Your task to perform on an android device: choose inbox layout in the gmail app Image 0: 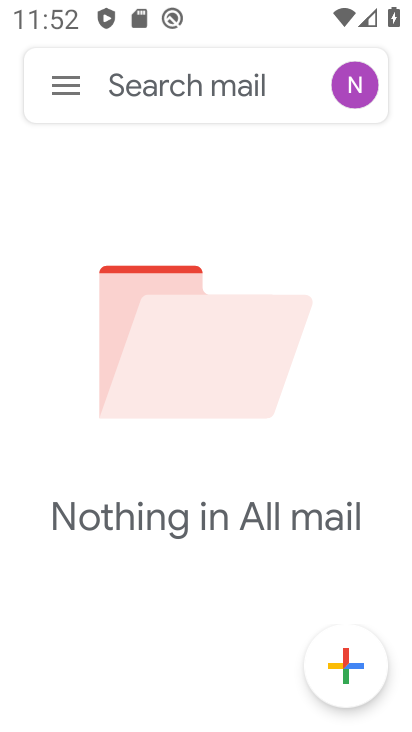
Step 0: press home button
Your task to perform on an android device: choose inbox layout in the gmail app Image 1: 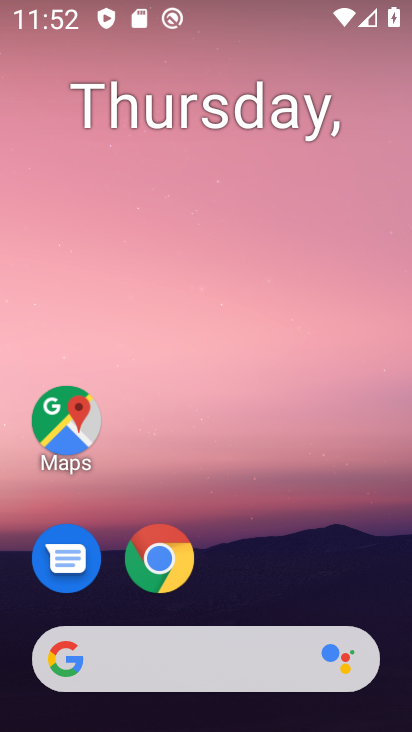
Step 1: drag from (368, 552) to (332, 116)
Your task to perform on an android device: choose inbox layout in the gmail app Image 2: 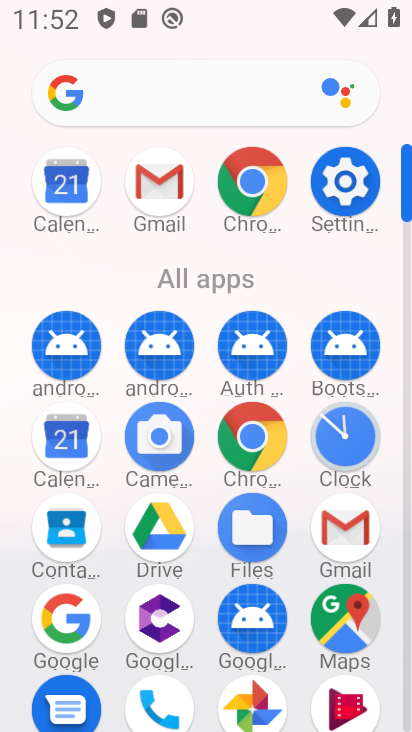
Step 2: click (352, 538)
Your task to perform on an android device: choose inbox layout in the gmail app Image 3: 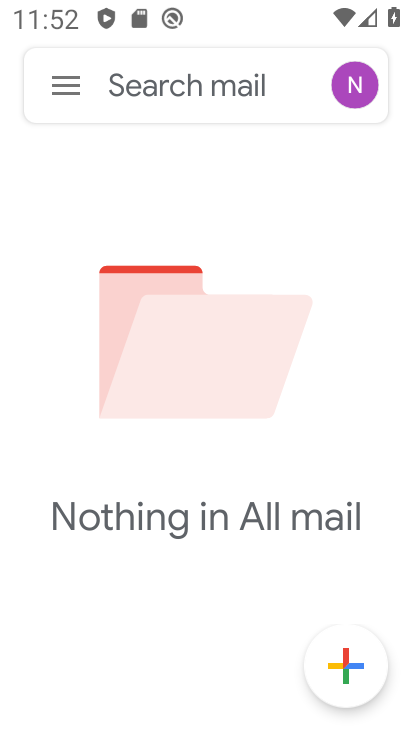
Step 3: click (61, 88)
Your task to perform on an android device: choose inbox layout in the gmail app Image 4: 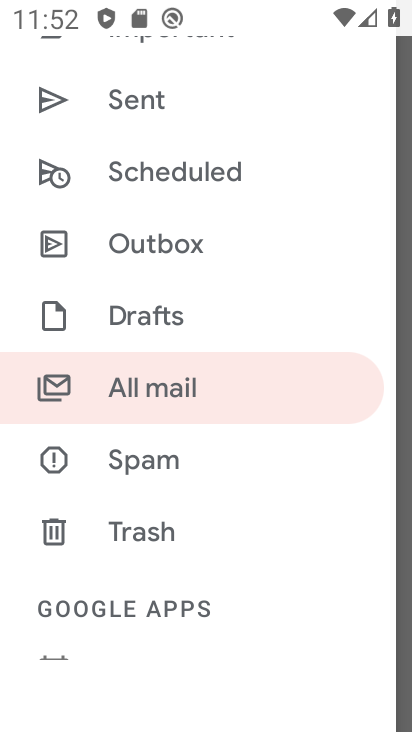
Step 4: drag from (284, 520) to (296, 371)
Your task to perform on an android device: choose inbox layout in the gmail app Image 5: 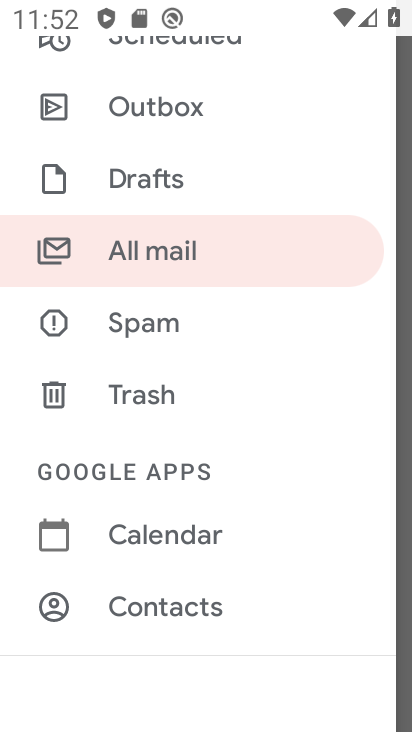
Step 5: drag from (316, 554) to (337, 308)
Your task to perform on an android device: choose inbox layout in the gmail app Image 6: 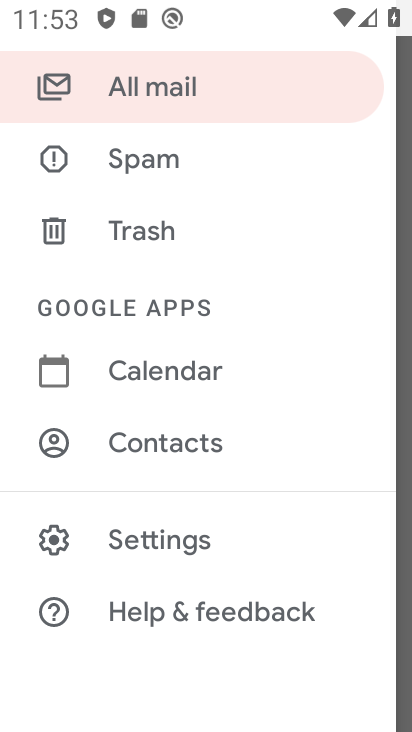
Step 6: click (218, 547)
Your task to perform on an android device: choose inbox layout in the gmail app Image 7: 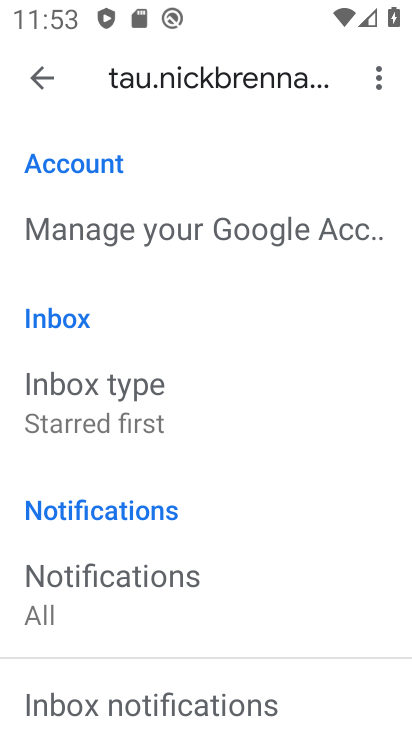
Step 7: drag from (297, 508) to (305, 349)
Your task to perform on an android device: choose inbox layout in the gmail app Image 8: 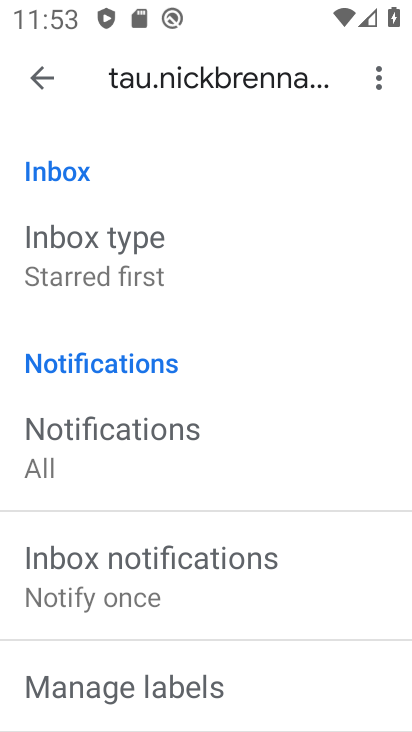
Step 8: drag from (303, 519) to (298, 354)
Your task to perform on an android device: choose inbox layout in the gmail app Image 9: 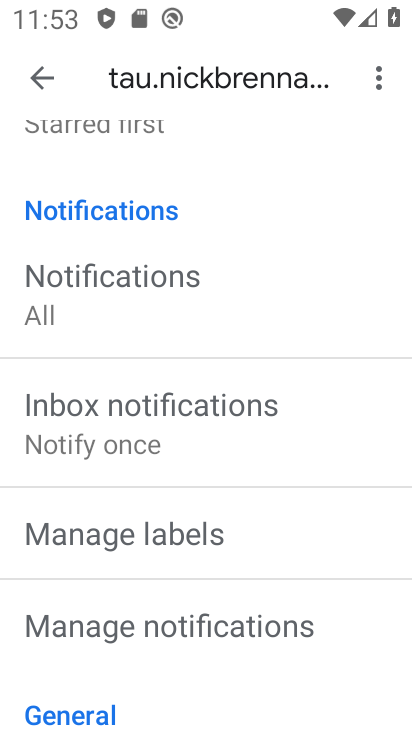
Step 9: drag from (331, 531) to (320, 294)
Your task to perform on an android device: choose inbox layout in the gmail app Image 10: 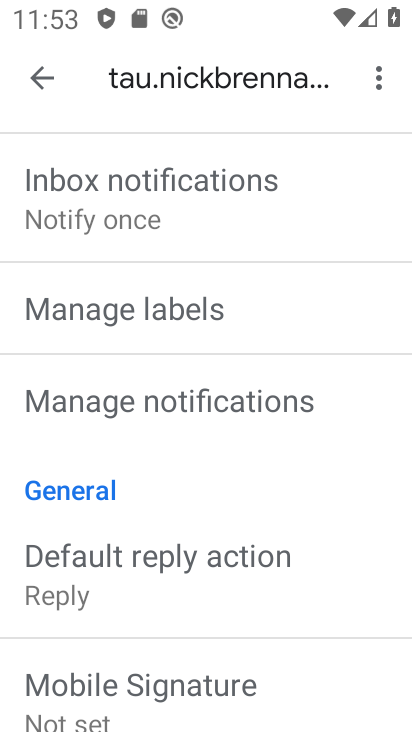
Step 10: drag from (325, 518) to (334, 369)
Your task to perform on an android device: choose inbox layout in the gmail app Image 11: 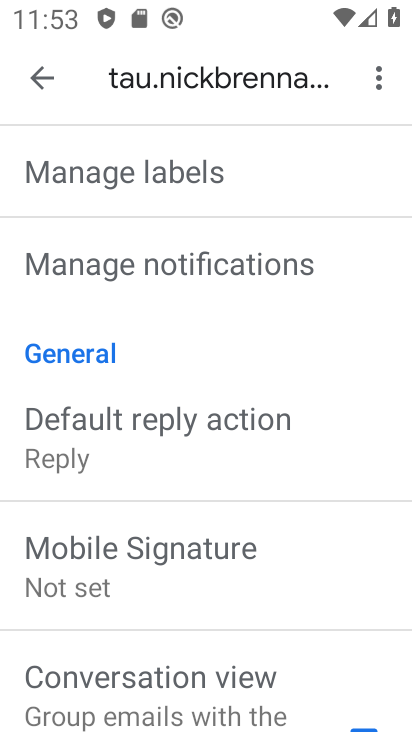
Step 11: drag from (311, 564) to (323, 430)
Your task to perform on an android device: choose inbox layout in the gmail app Image 12: 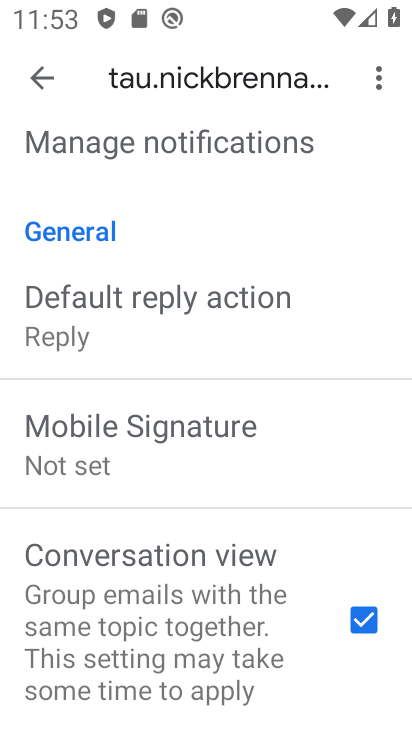
Step 12: drag from (339, 326) to (315, 521)
Your task to perform on an android device: choose inbox layout in the gmail app Image 13: 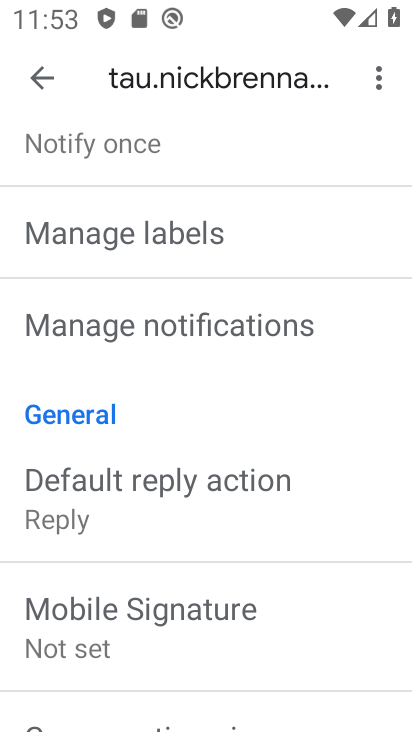
Step 13: drag from (333, 294) to (328, 508)
Your task to perform on an android device: choose inbox layout in the gmail app Image 14: 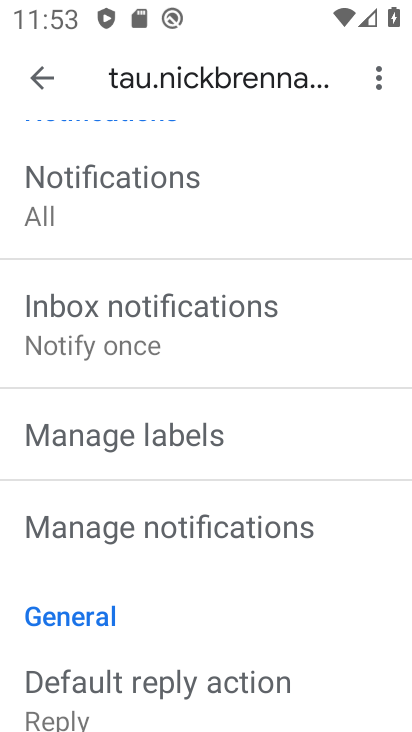
Step 14: drag from (333, 208) to (332, 393)
Your task to perform on an android device: choose inbox layout in the gmail app Image 15: 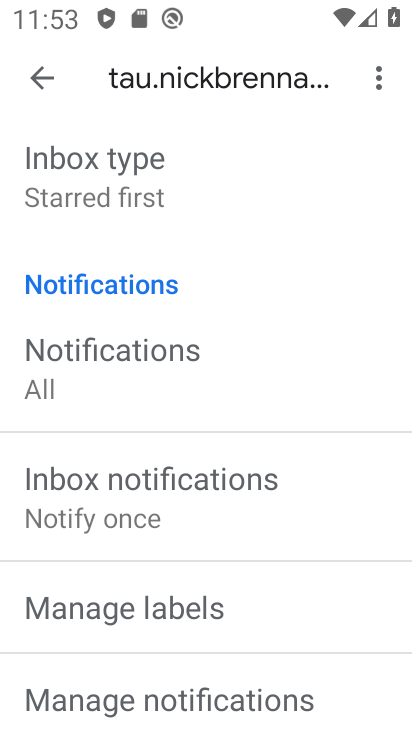
Step 15: drag from (316, 208) to (312, 382)
Your task to perform on an android device: choose inbox layout in the gmail app Image 16: 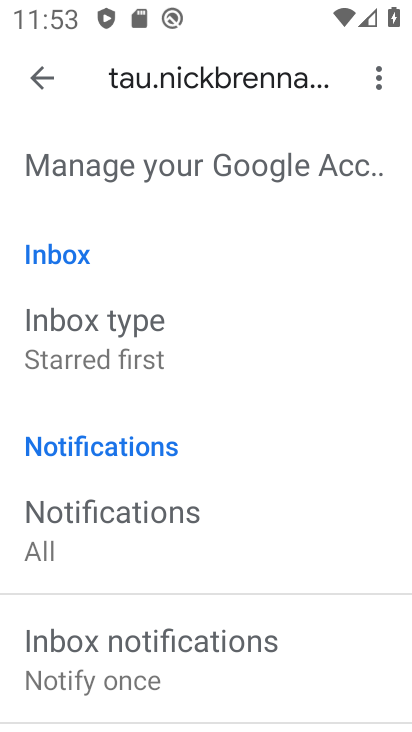
Step 16: click (183, 348)
Your task to perform on an android device: choose inbox layout in the gmail app Image 17: 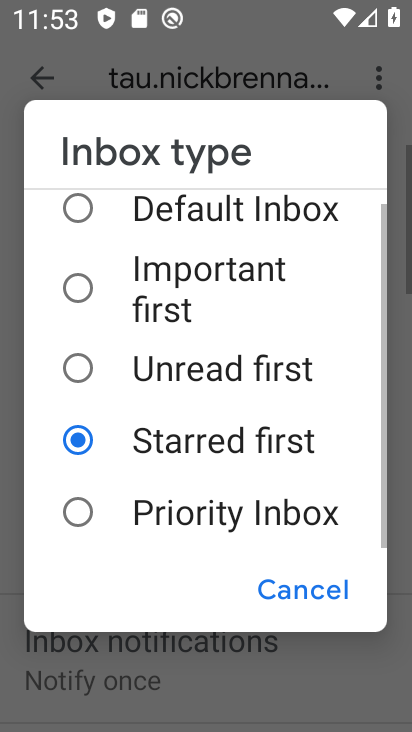
Step 17: click (201, 368)
Your task to perform on an android device: choose inbox layout in the gmail app Image 18: 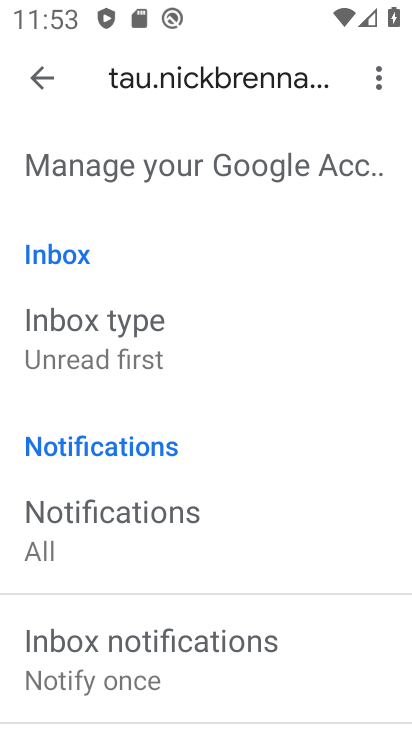
Step 18: task complete